Your task to perform on an android device: Open calendar and show me the fourth week of next month Image 0: 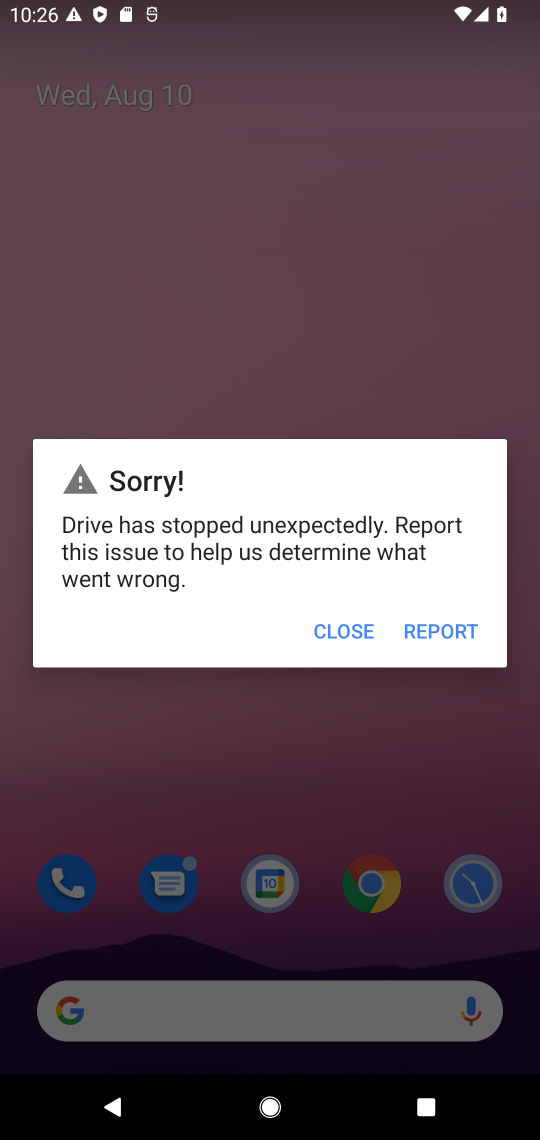
Step 0: press home button
Your task to perform on an android device: Open calendar and show me the fourth week of next month Image 1: 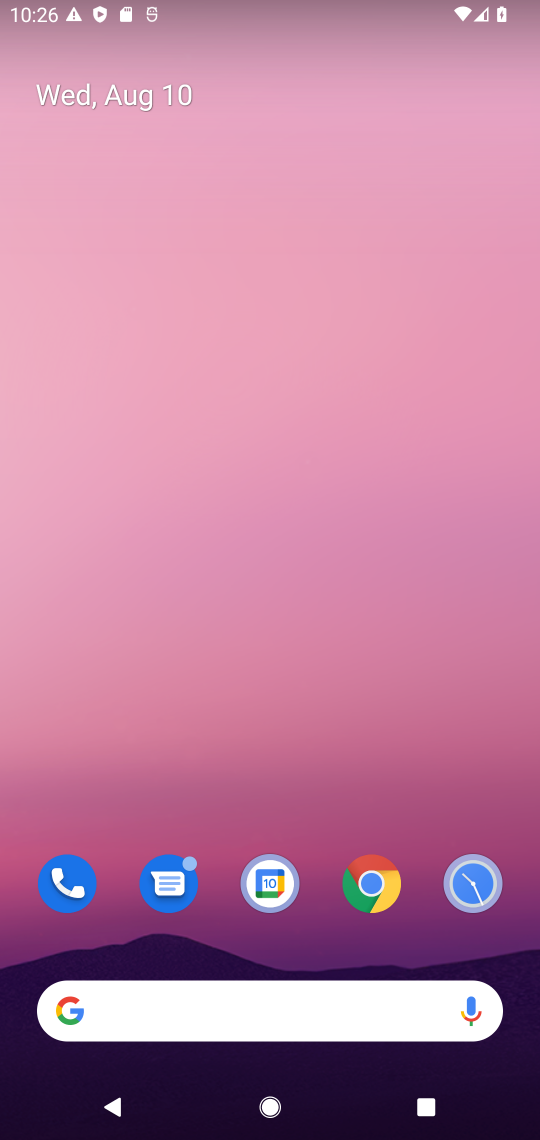
Step 1: drag from (316, 911) to (278, 36)
Your task to perform on an android device: Open calendar and show me the fourth week of next month Image 2: 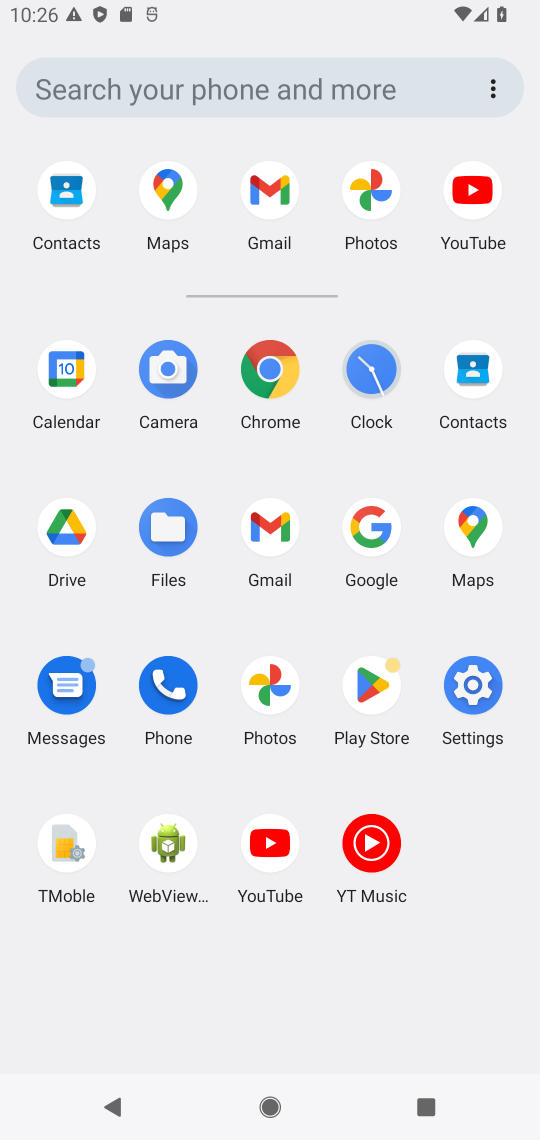
Step 2: click (54, 367)
Your task to perform on an android device: Open calendar and show me the fourth week of next month Image 3: 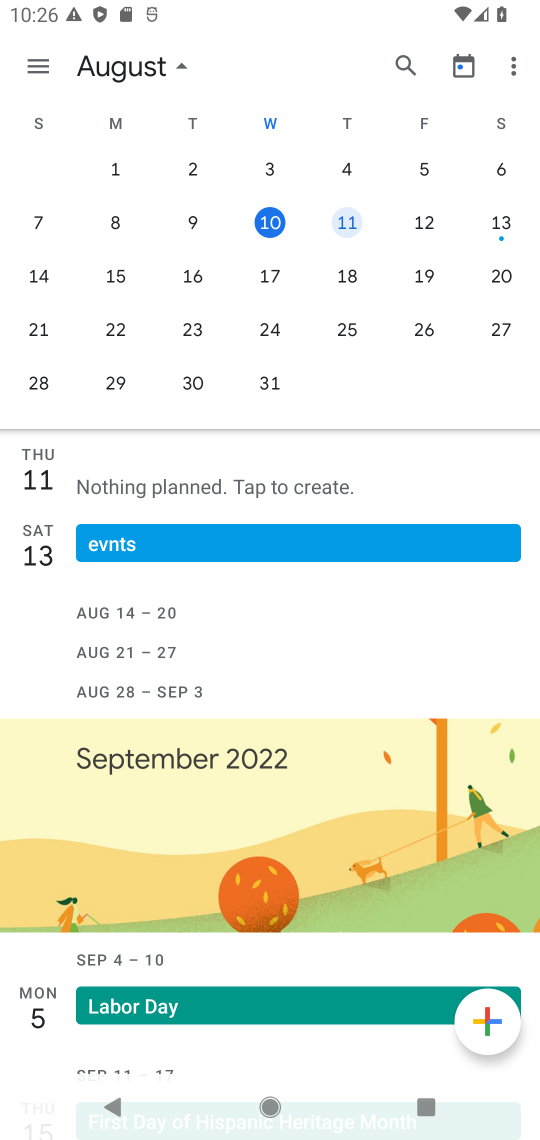
Step 3: drag from (456, 225) to (17, 206)
Your task to perform on an android device: Open calendar and show me the fourth week of next month Image 4: 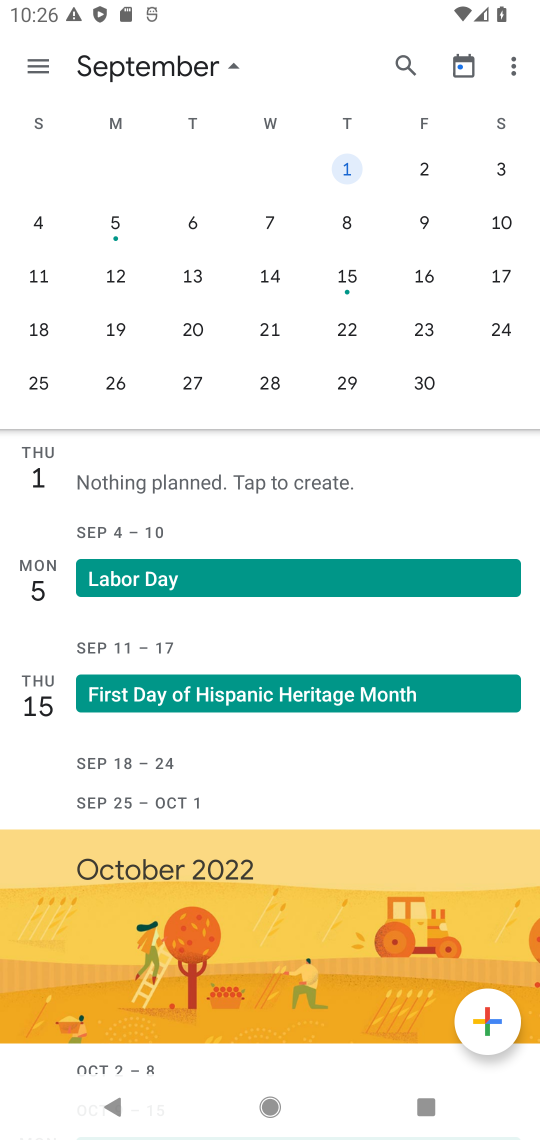
Step 4: click (264, 381)
Your task to perform on an android device: Open calendar and show me the fourth week of next month Image 5: 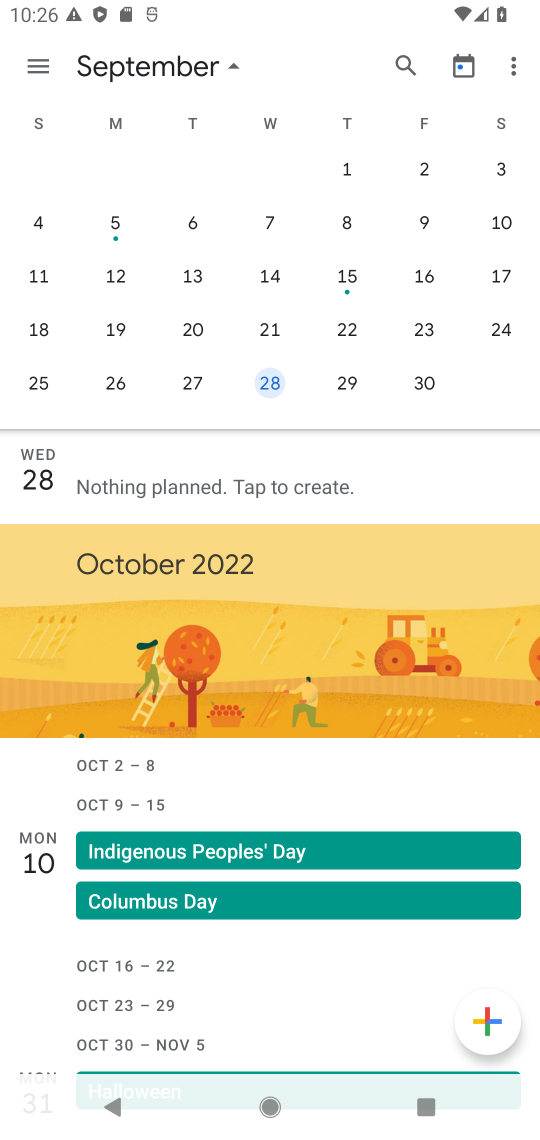
Step 5: task complete